Your task to perform on an android device: Open settings Image 0: 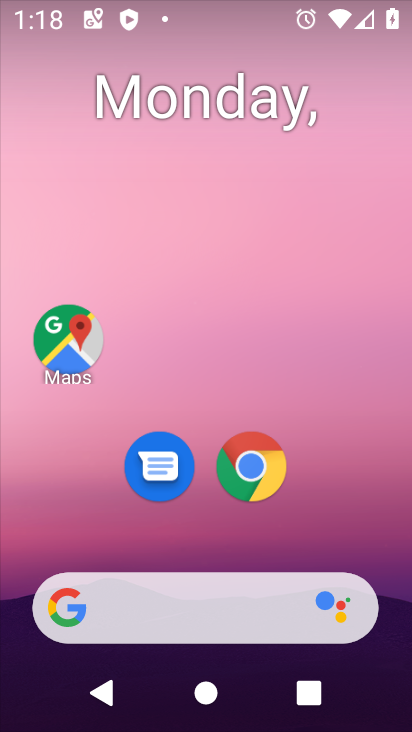
Step 0: drag from (360, 540) to (240, 202)
Your task to perform on an android device: Open settings Image 1: 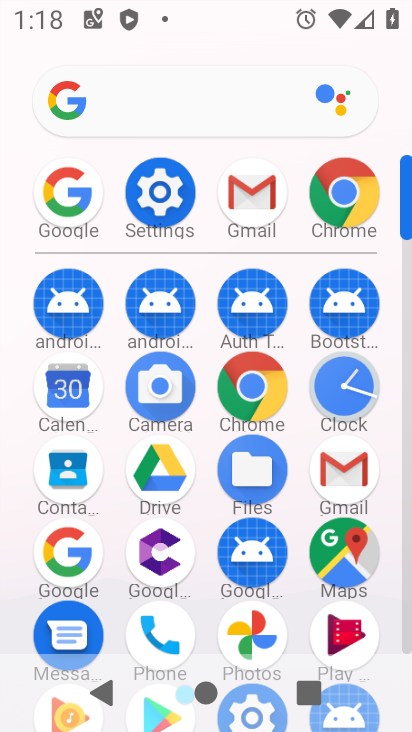
Step 1: click (148, 192)
Your task to perform on an android device: Open settings Image 2: 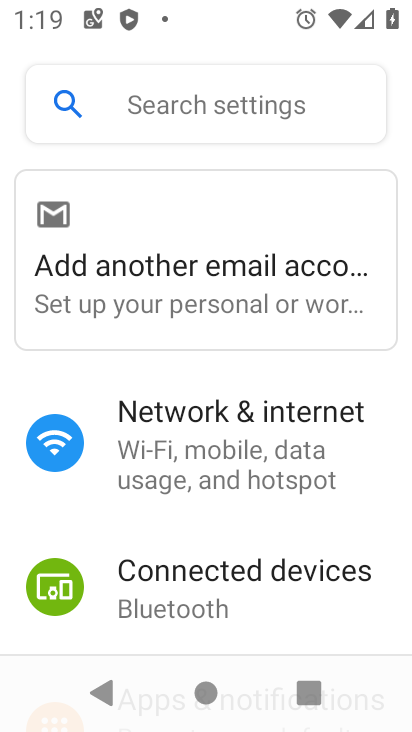
Step 2: task complete